Your task to perform on an android device: Open Google Chrome and click the shortcut for Amazon.com Image 0: 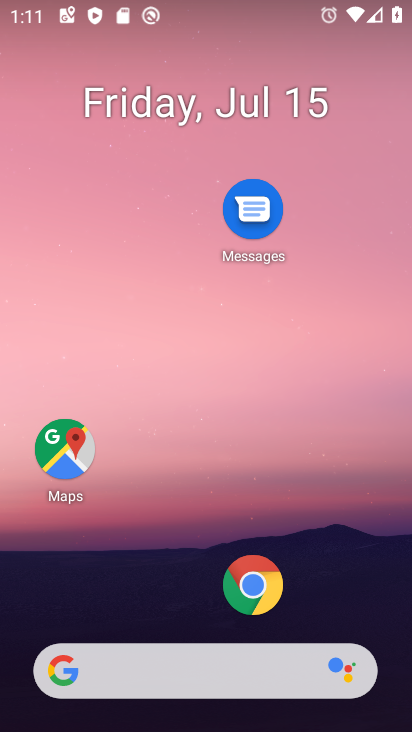
Step 0: press home button
Your task to perform on an android device: Open Google Chrome and click the shortcut for Amazon.com Image 1: 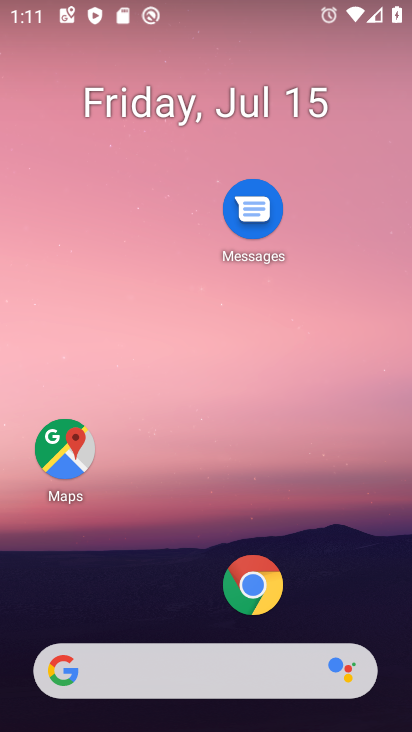
Step 1: click (251, 586)
Your task to perform on an android device: Open Google Chrome and click the shortcut for Amazon.com Image 2: 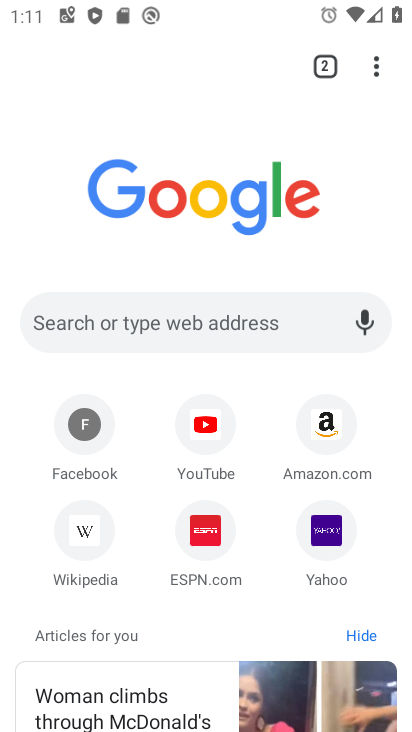
Step 2: click (329, 414)
Your task to perform on an android device: Open Google Chrome and click the shortcut for Amazon.com Image 3: 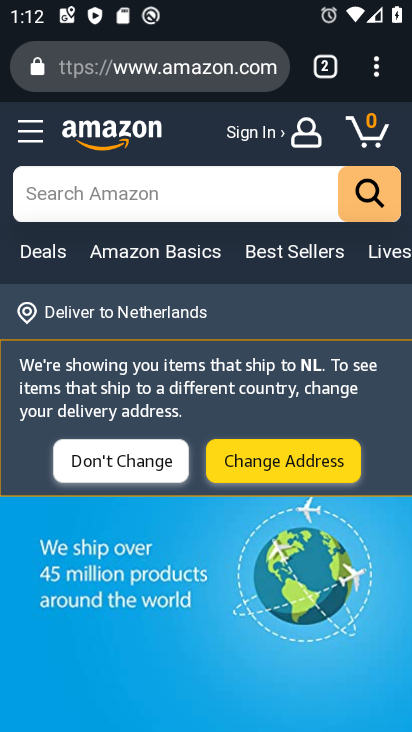
Step 3: task complete